Your task to perform on an android device: Open battery settings Image 0: 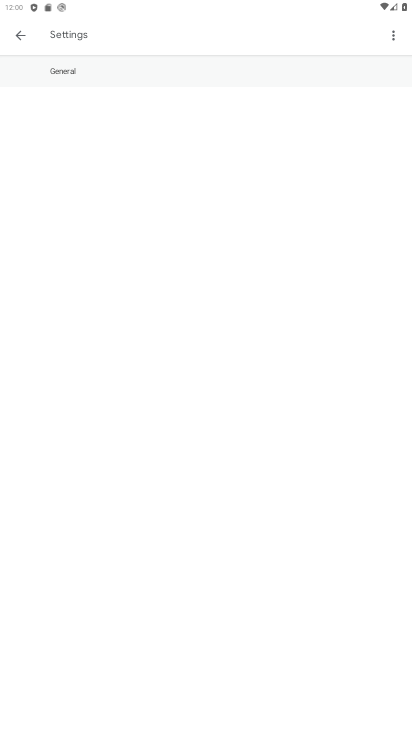
Step 0: click (17, 33)
Your task to perform on an android device: Open battery settings Image 1: 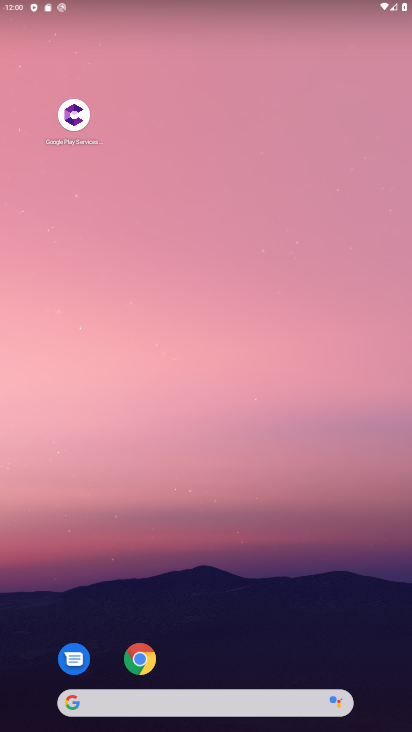
Step 1: drag from (194, 588) to (230, 53)
Your task to perform on an android device: Open battery settings Image 2: 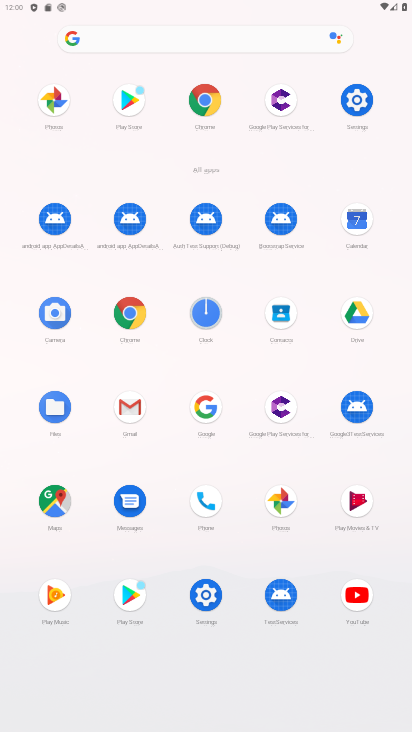
Step 2: click (355, 94)
Your task to perform on an android device: Open battery settings Image 3: 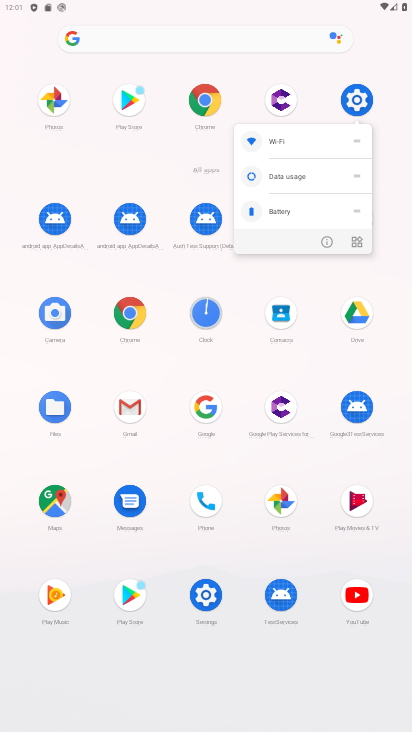
Step 3: click (365, 91)
Your task to perform on an android device: Open battery settings Image 4: 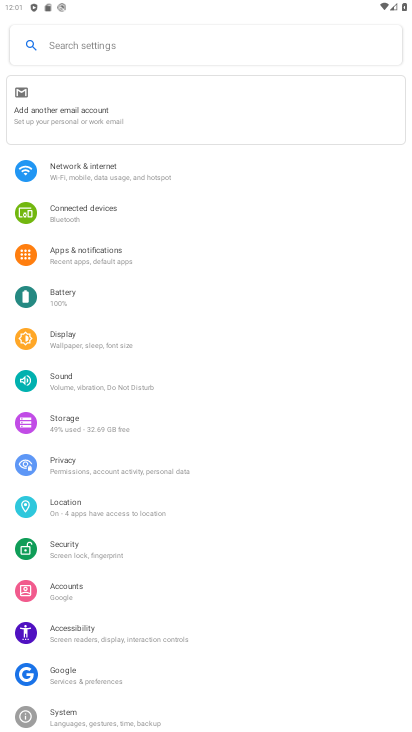
Step 4: click (60, 301)
Your task to perform on an android device: Open battery settings Image 5: 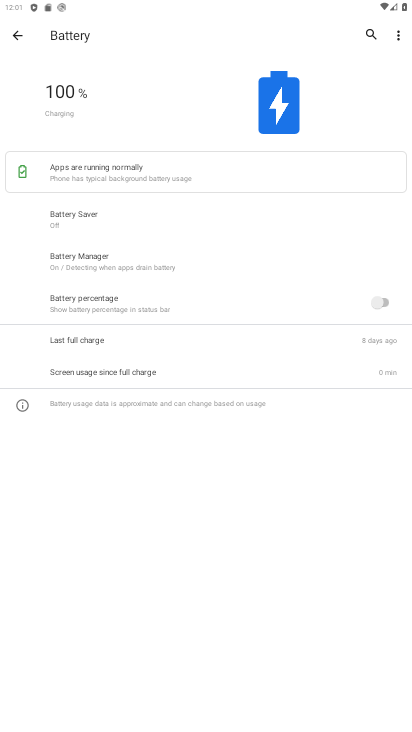
Step 5: task complete